Your task to perform on an android device: Open the web browser Image 0: 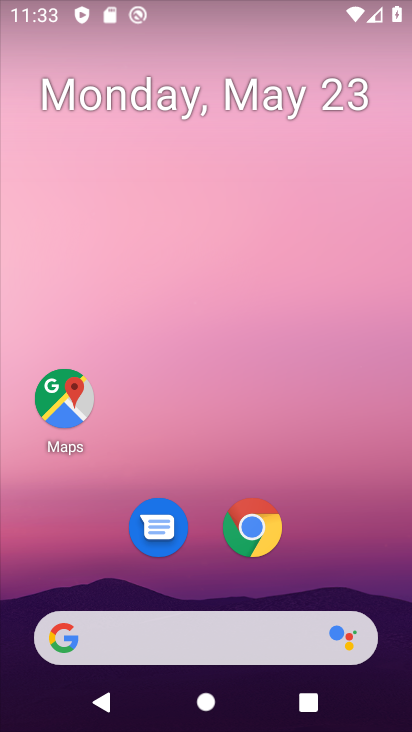
Step 0: click (264, 521)
Your task to perform on an android device: Open the web browser Image 1: 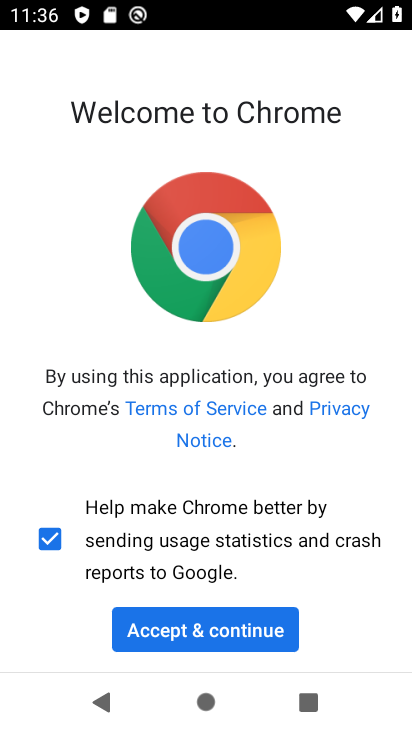
Step 1: task complete